Your task to perform on an android device: read, delete, or share a saved page in the chrome app Image 0: 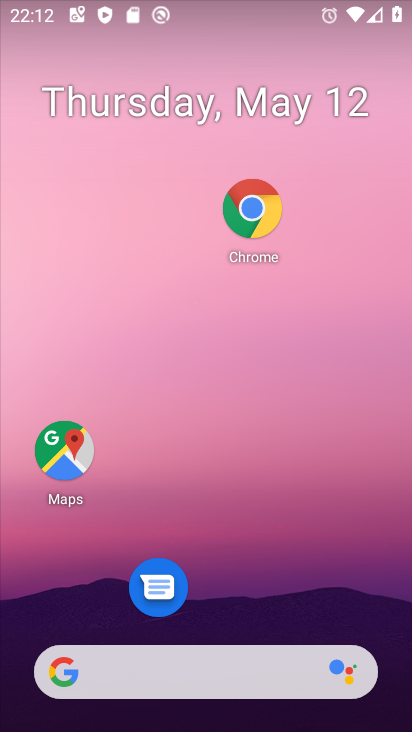
Step 0: drag from (265, 637) to (242, 327)
Your task to perform on an android device: read, delete, or share a saved page in the chrome app Image 1: 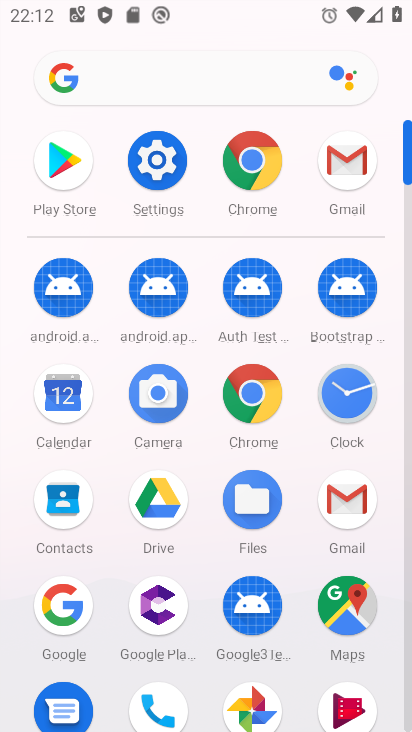
Step 1: click (249, 385)
Your task to perform on an android device: read, delete, or share a saved page in the chrome app Image 2: 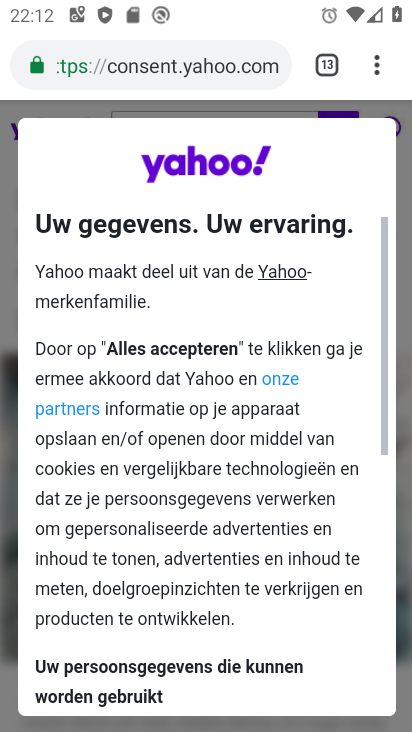
Step 2: click (361, 57)
Your task to perform on an android device: read, delete, or share a saved page in the chrome app Image 3: 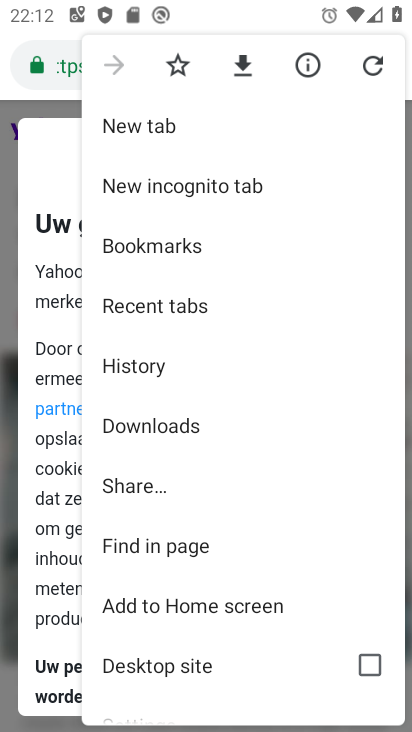
Step 3: click (152, 423)
Your task to perform on an android device: read, delete, or share a saved page in the chrome app Image 4: 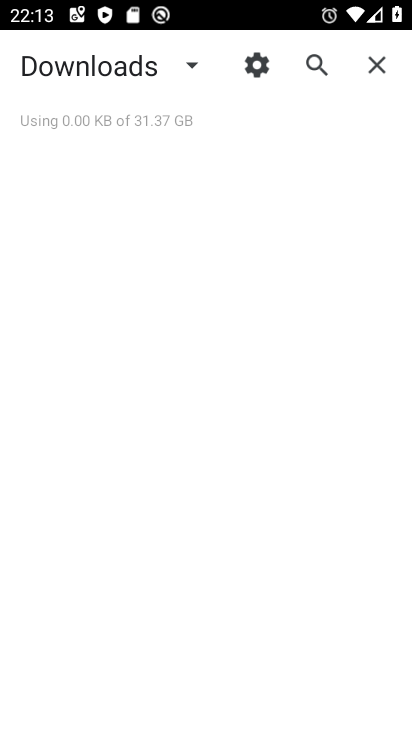
Step 4: task complete